Your task to perform on an android device: search for starred emails in the gmail app Image 0: 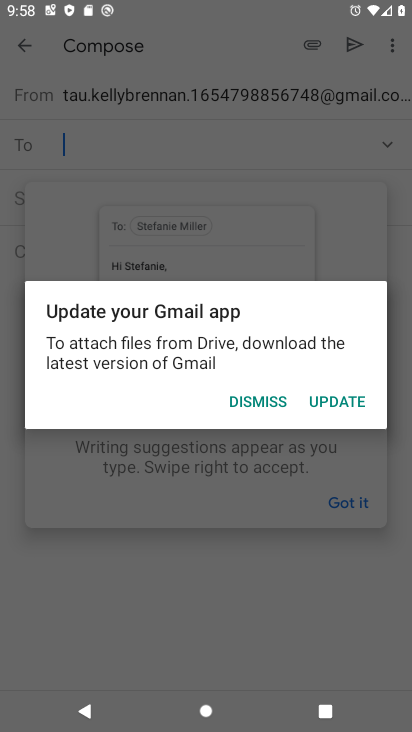
Step 0: press home button
Your task to perform on an android device: search for starred emails in the gmail app Image 1: 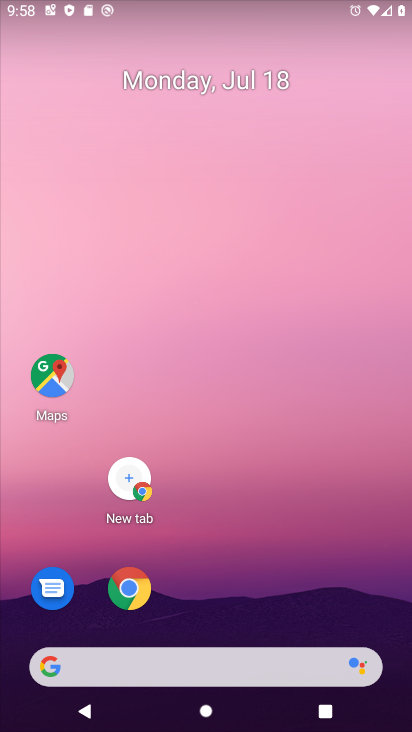
Step 1: drag from (184, 534) to (254, 18)
Your task to perform on an android device: search for starred emails in the gmail app Image 2: 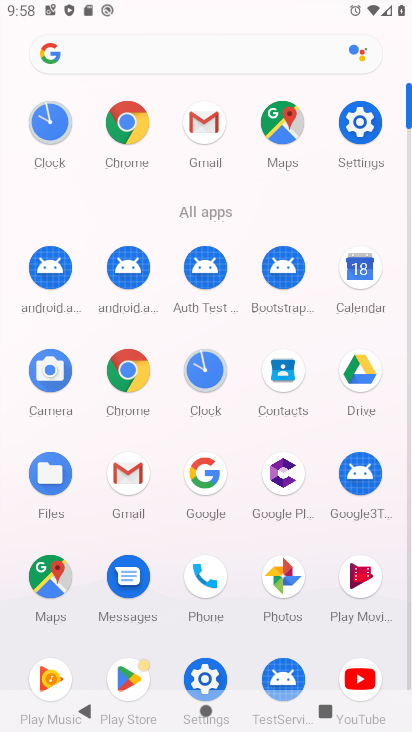
Step 2: click (211, 176)
Your task to perform on an android device: search for starred emails in the gmail app Image 3: 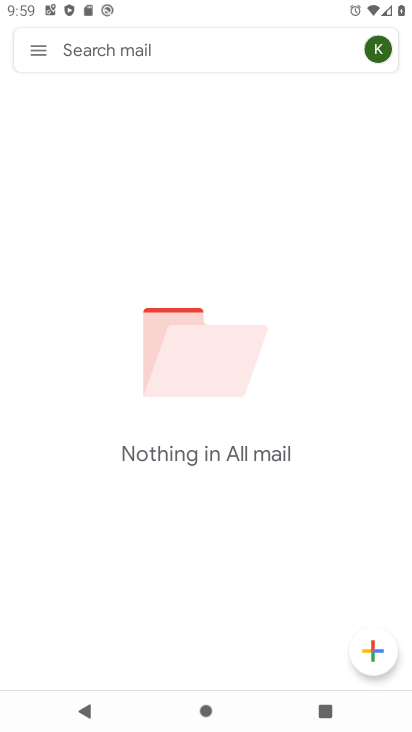
Step 3: click (43, 53)
Your task to perform on an android device: search for starred emails in the gmail app Image 4: 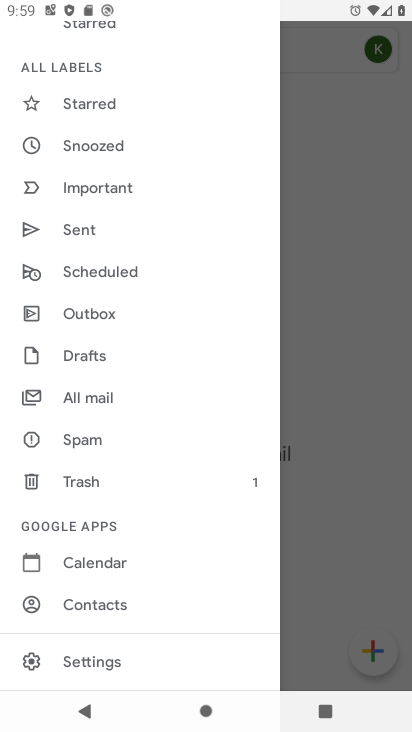
Step 4: click (122, 100)
Your task to perform on an android device: search for starred emails in the gmail app Image 5: 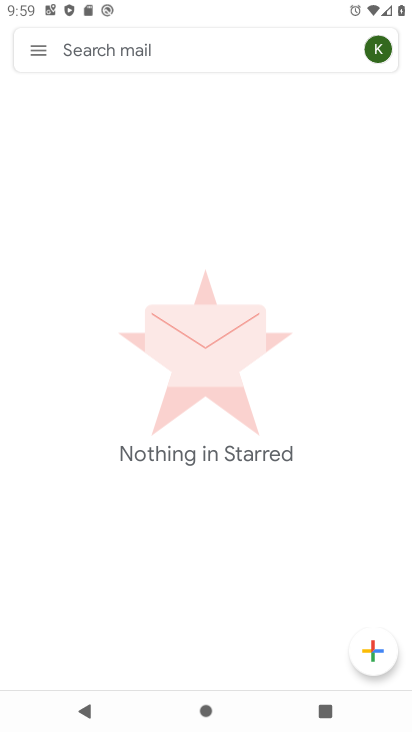
Step 5: task complete